Your task to perform on an android device: Add alienware area 51 to the cart on amazon Image 0: 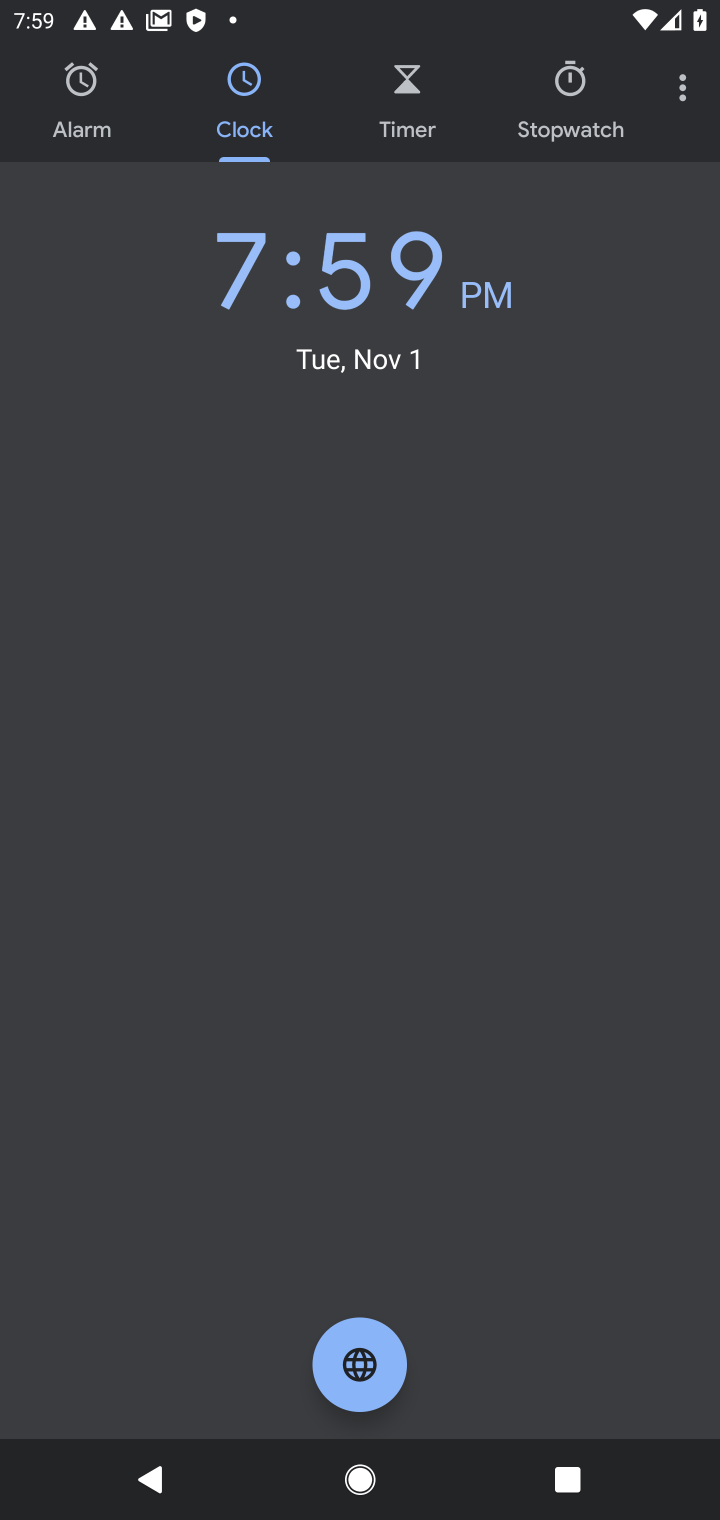
Step 0: press home button
Your task to perform on an android device: Add alienware area 51 to the cart on amazon Image 1: 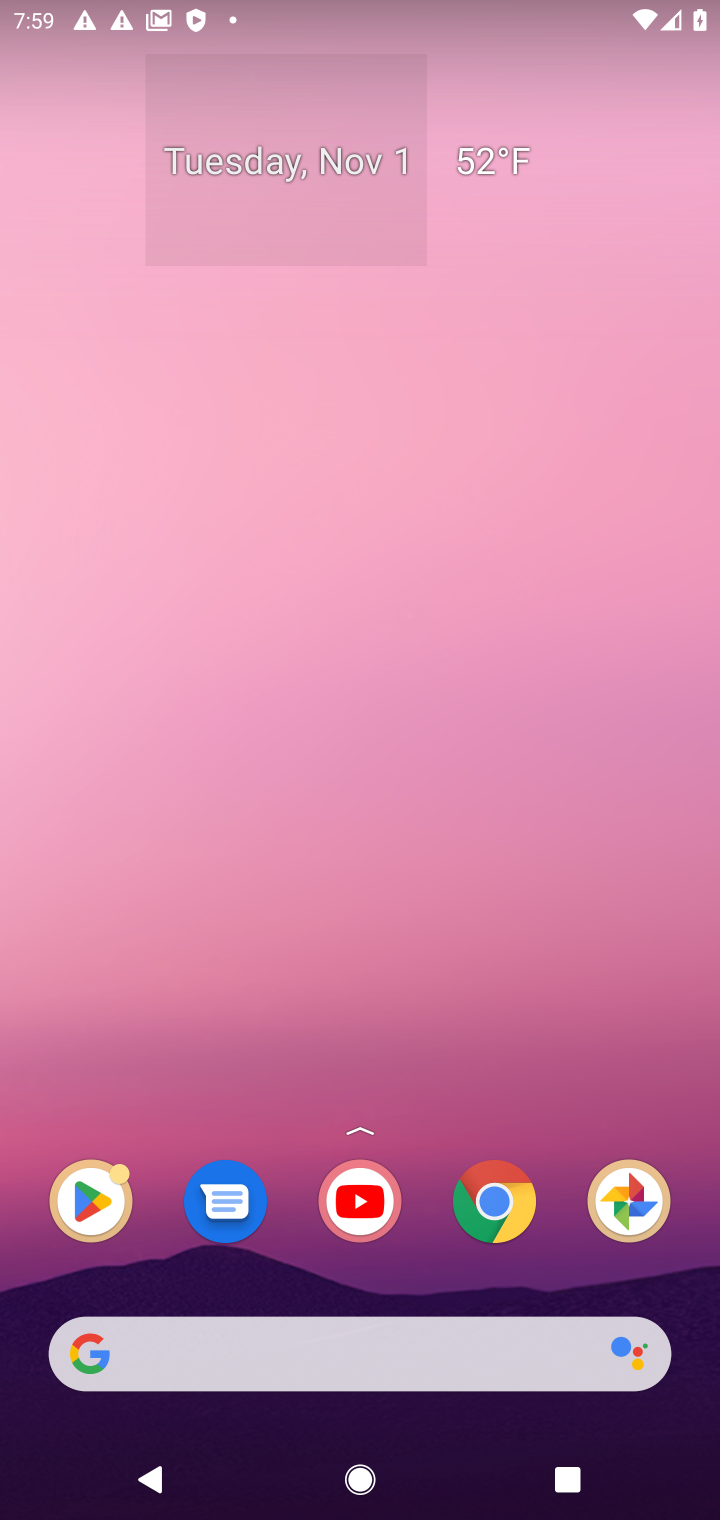
Step 1: click (421, 1329)
Your task to perform on an android device: Add alienware area 51 to the cart on amazon Image 2: 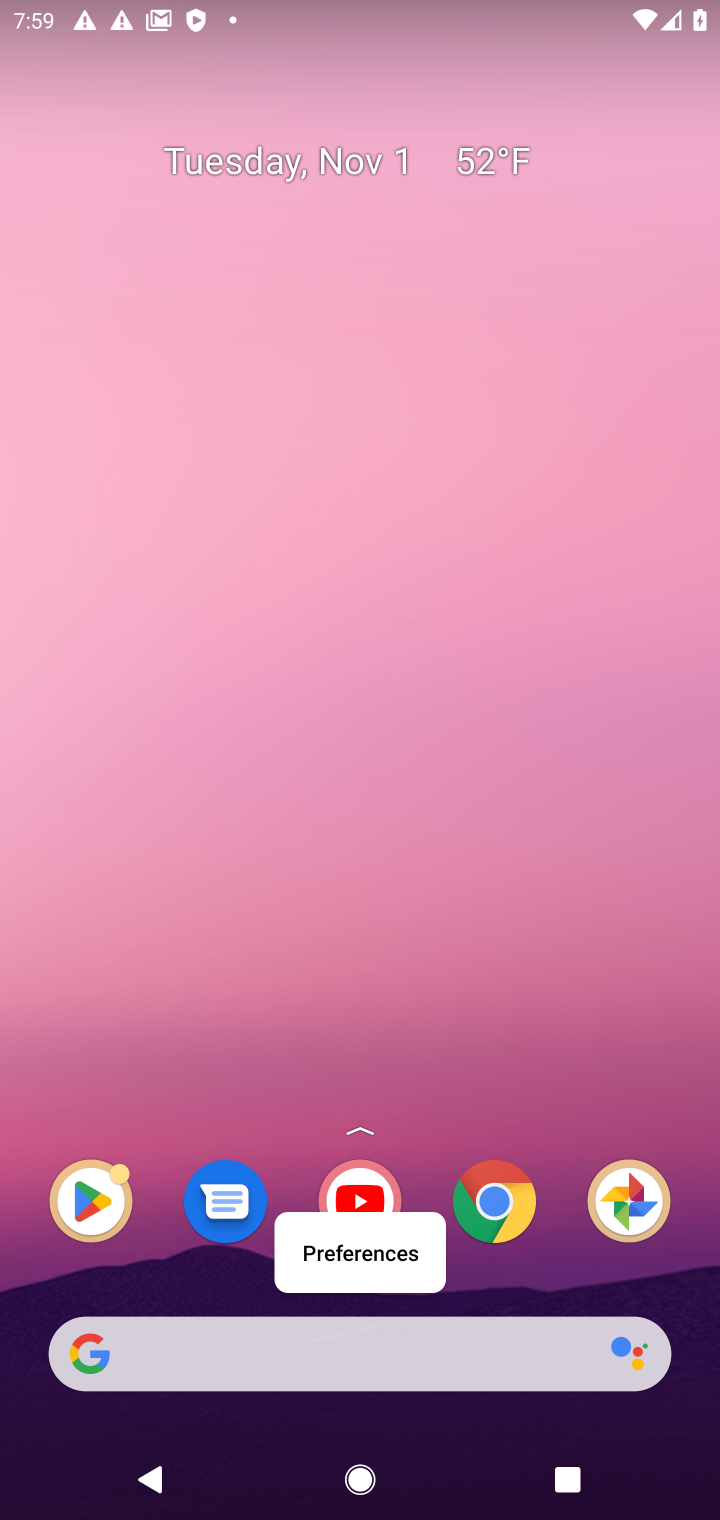
Step 2: click (410, 1345)
Your task to perform on an android device: Add alienware area 51 to the cart on amazon Image 3: 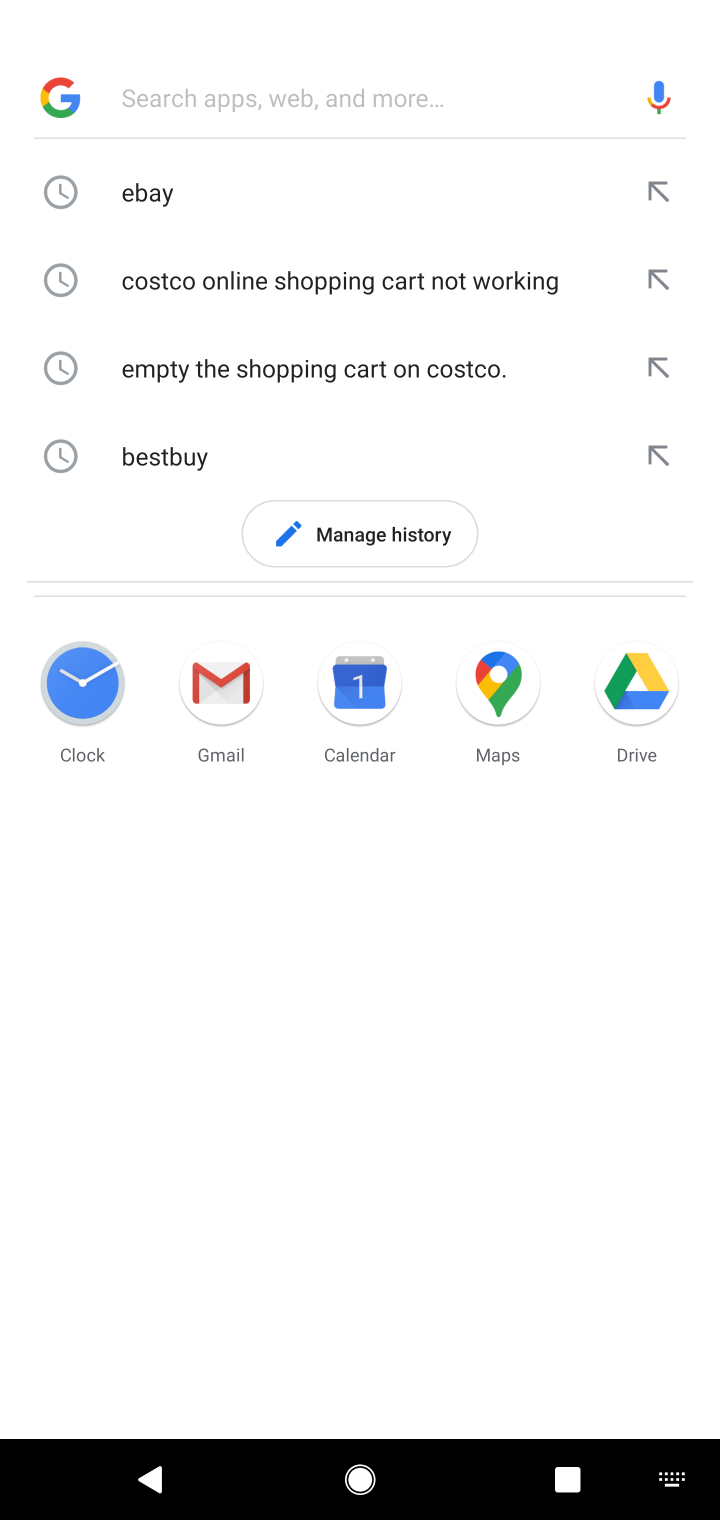
Step 3: type "amazon"
Your task to perform on an android device: Add alienware area 51 to the cart on amazon Image 4: 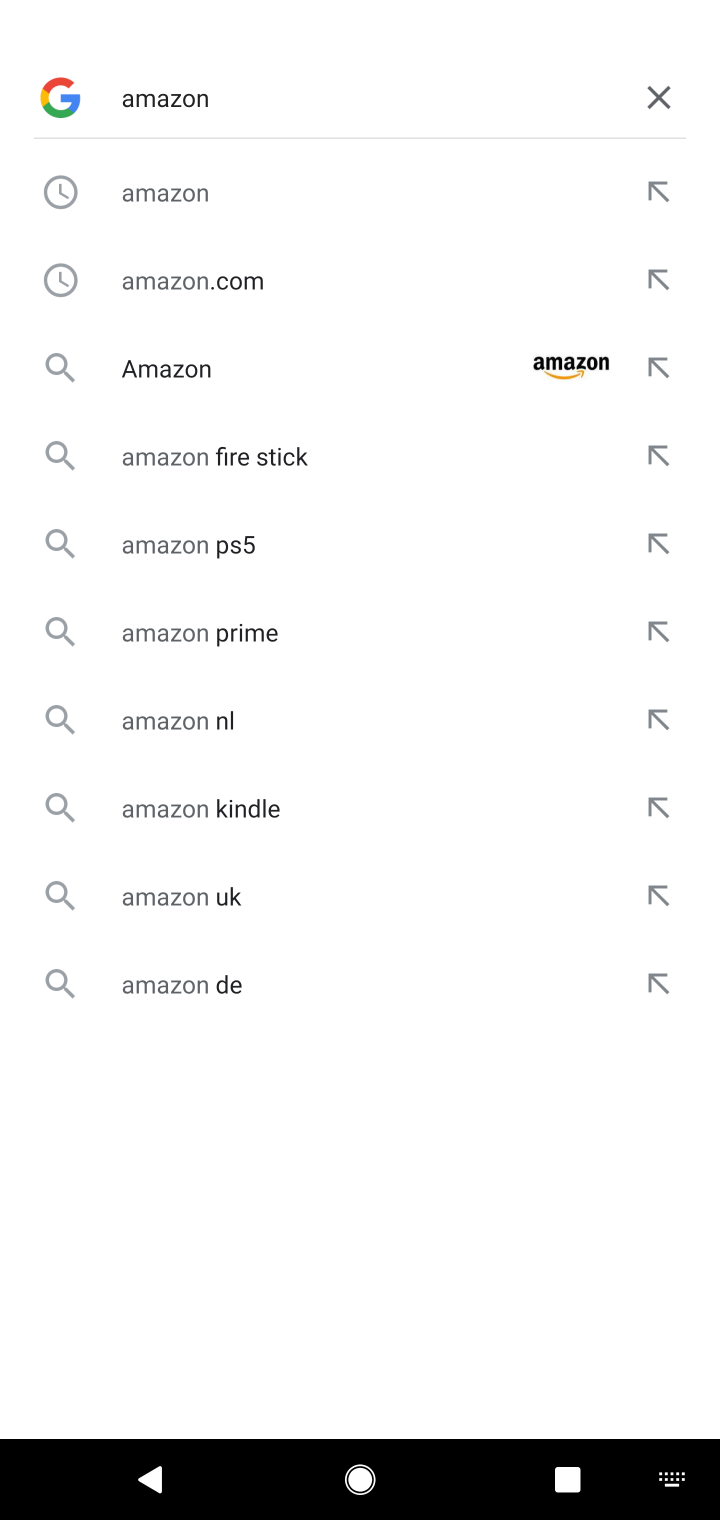
Step 4: type ""
Your task to perform on an android device: Add alienware area 51 to the cart on amazon Image 5: 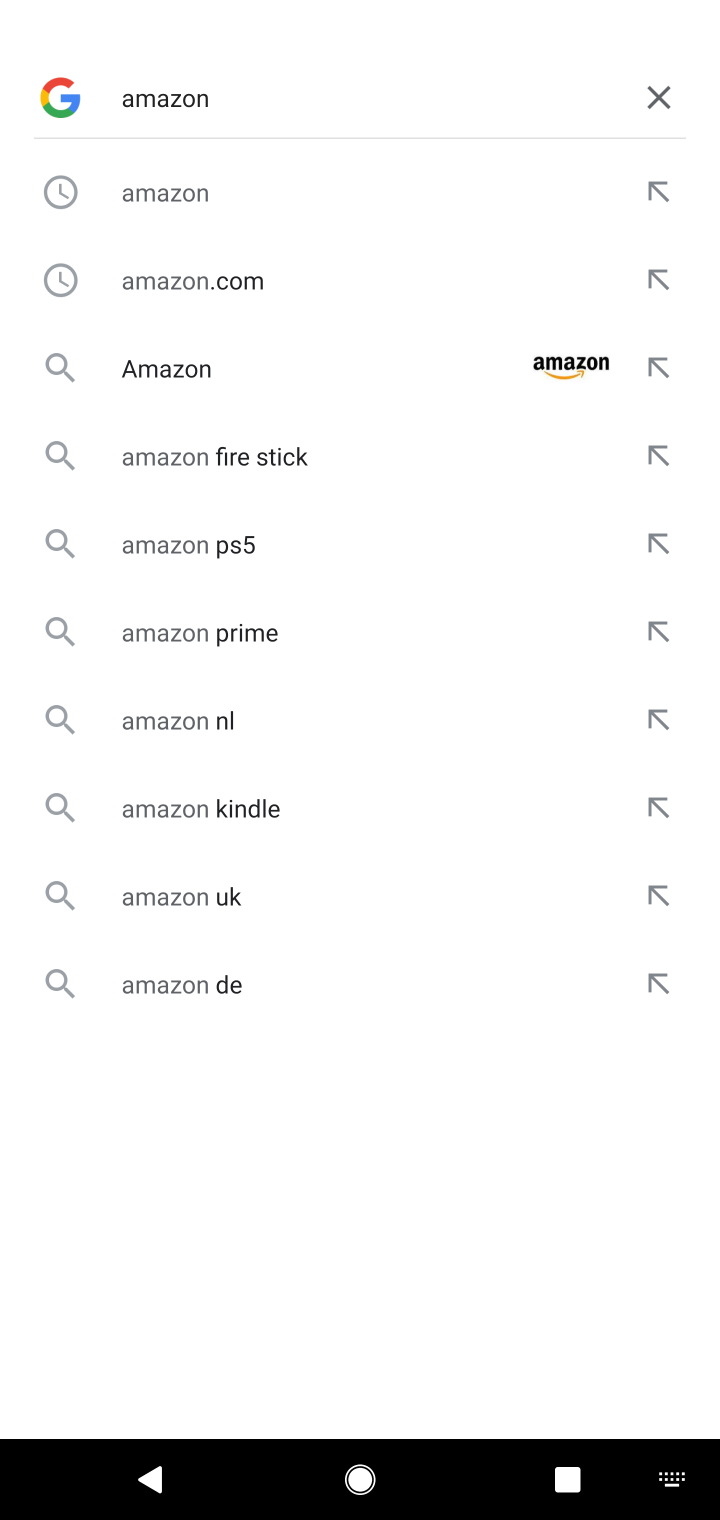
Step 5: press enter
Your task to perform on an android device: Add alienware area 51 to the cart on amazon Image 6: 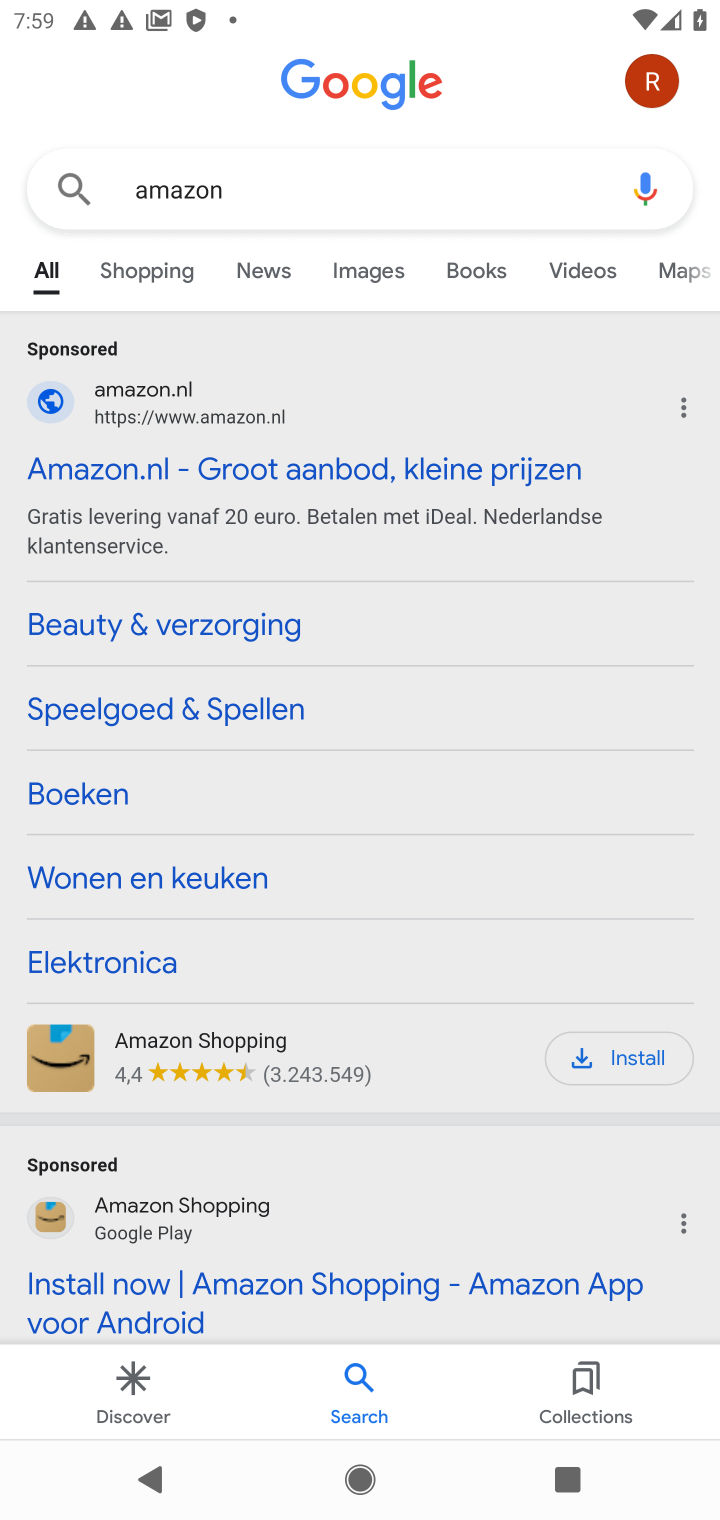
Step 6: drag from (397, 1061) to (416, 499)
Your task to perform on an android device: Add alienware area 51 to the cart on amazon Image 7: 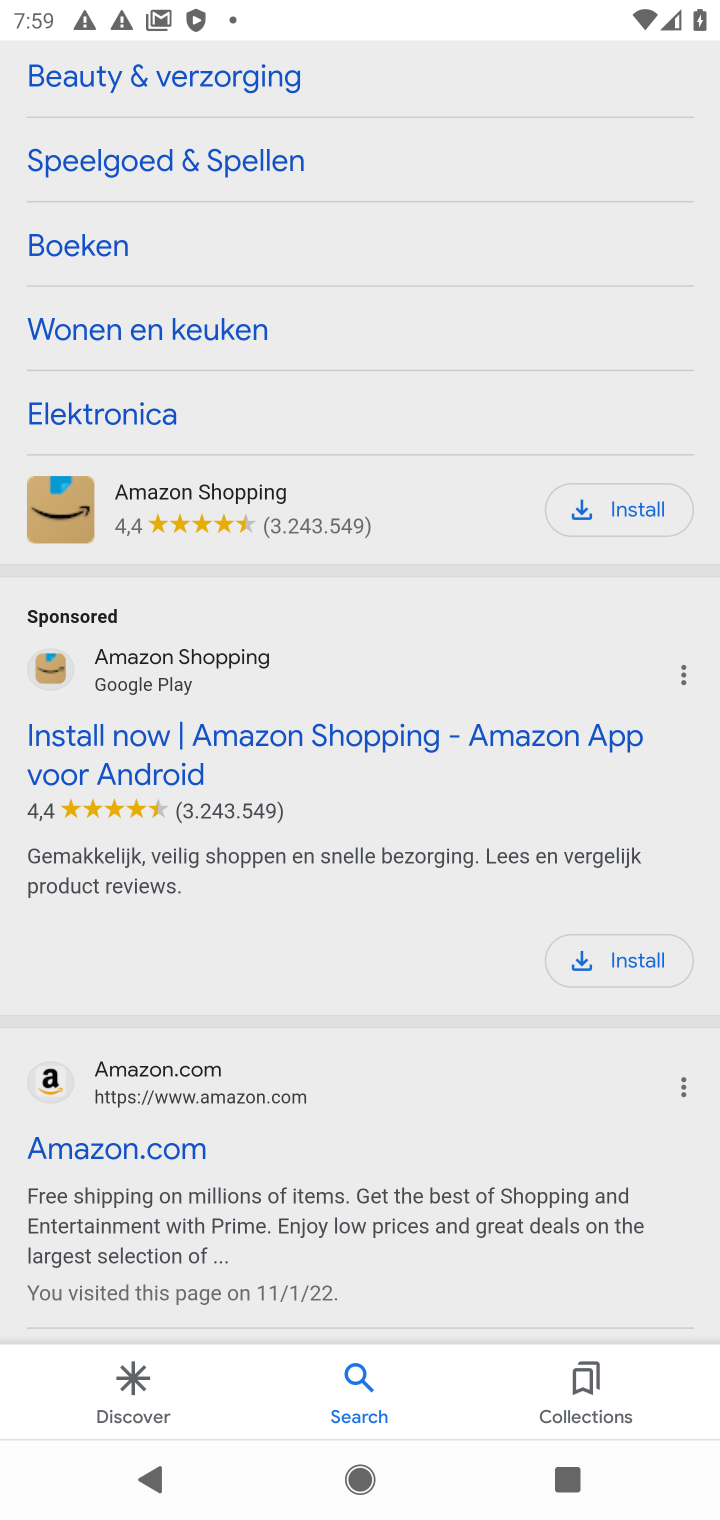
Step 7: click (205, 748)
Your task to perform on an android device: Add alienware area 51 to the cart on amazon Image 8: 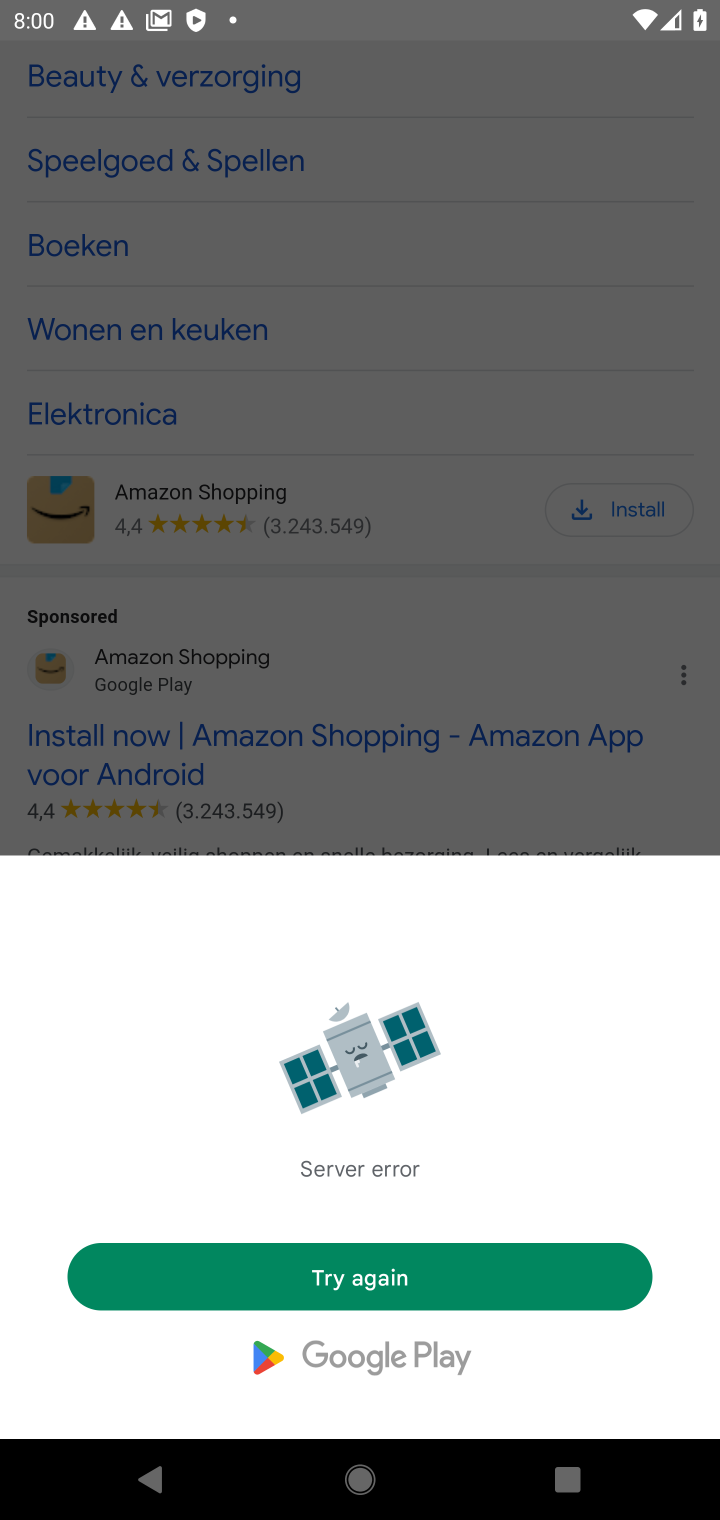
Step 8: click (414, 584)
Your task to perform on an android device: Add alienware area 51 to the cart on amazon Image 9: 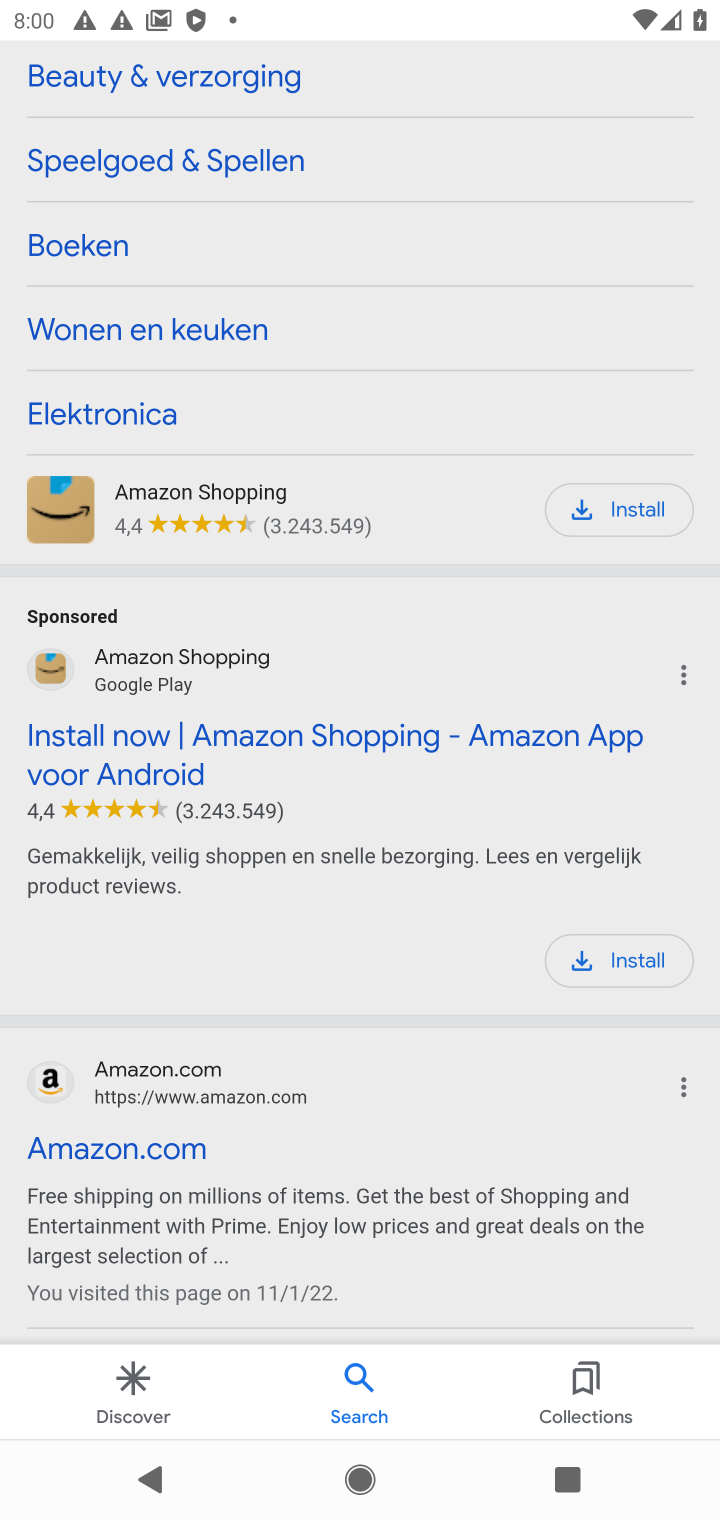
Step 9: click (202, 746)
Your task to perform on an android device: Add alienware area 51 to the cart on amazon Image 10: 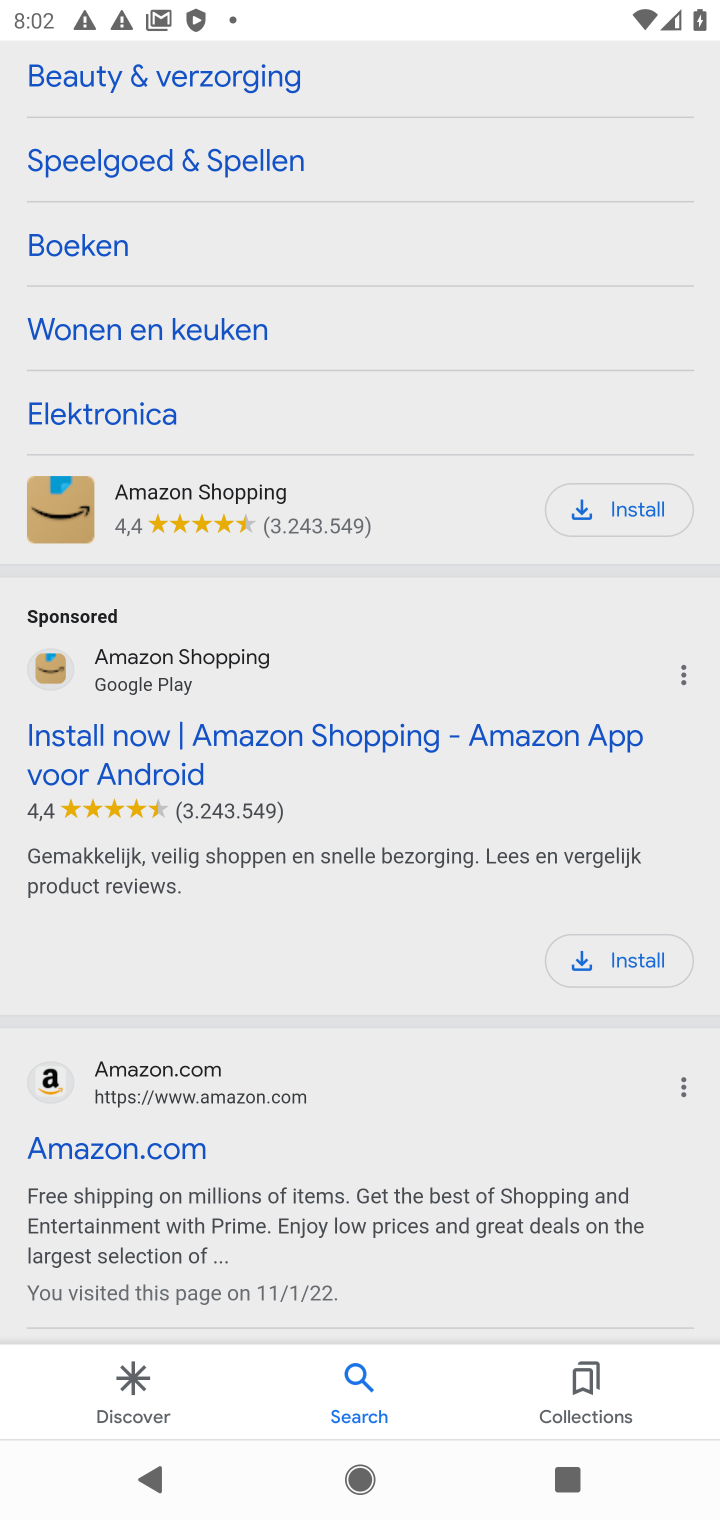
Step 10: click (238, 735)
Your task to perform on an android device: Add alienware area 51 to the cart on amazon Image 11: 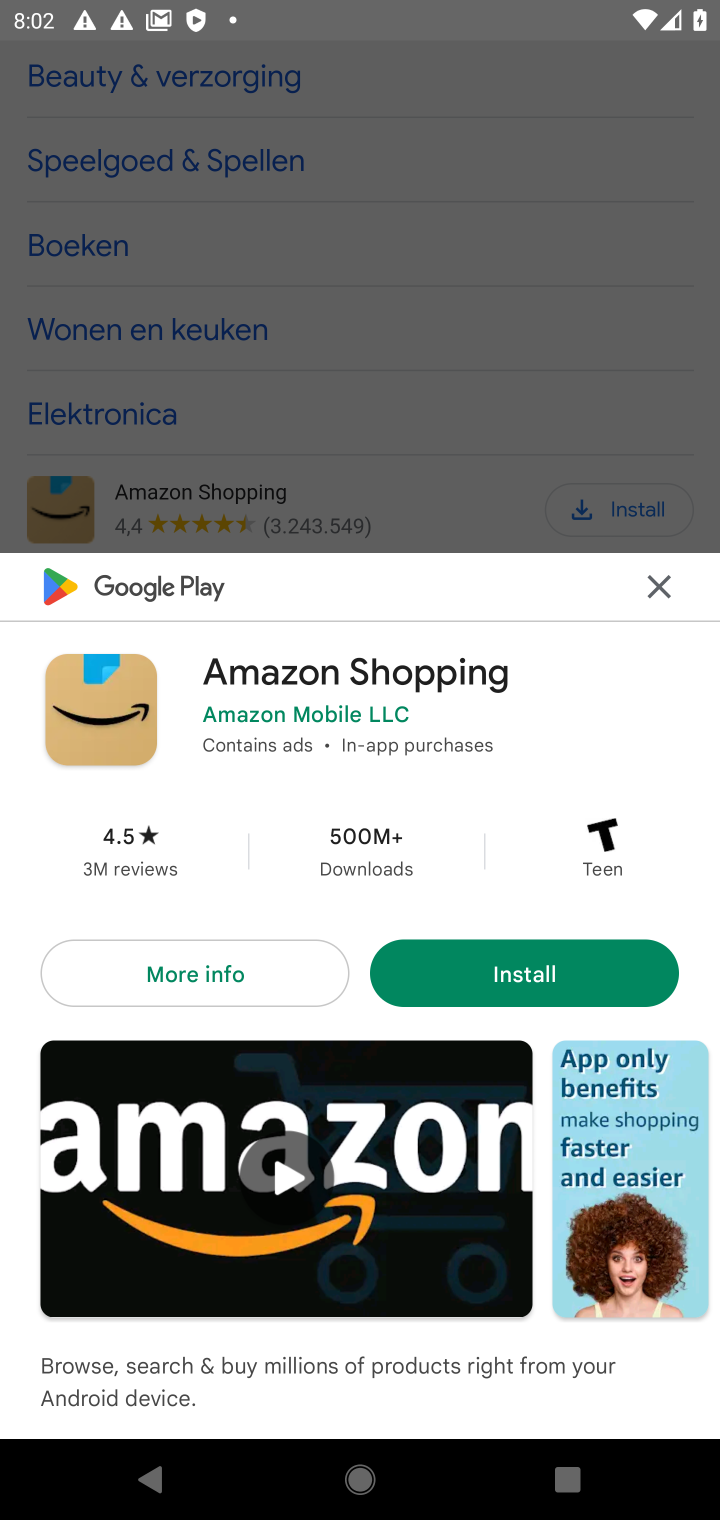
Step 11: click (657, 595)
Your task to perform on an android device: Add alienware area 51 to the cart on amazon Image 12: 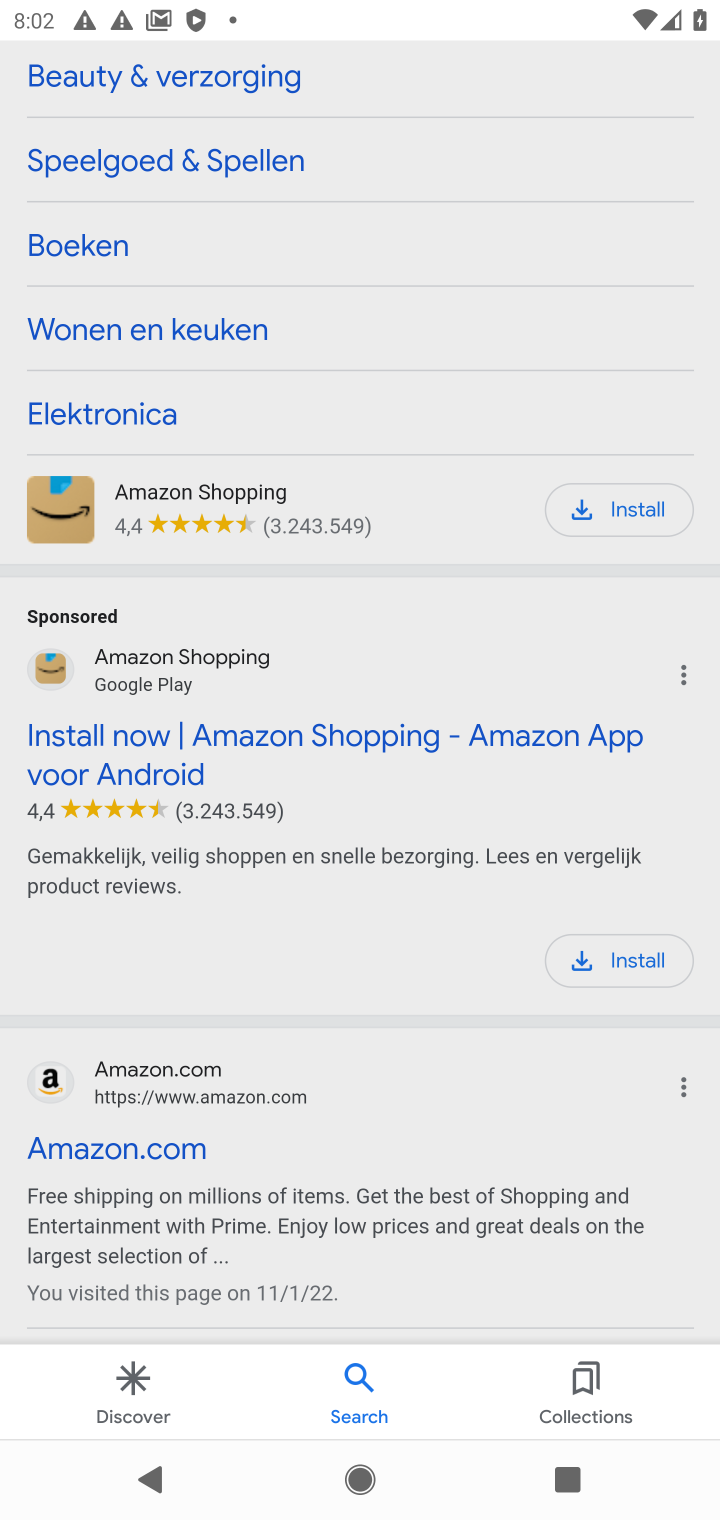
Step 12: task complete